Your task to perform on an android device: Go to Maps Image 0: 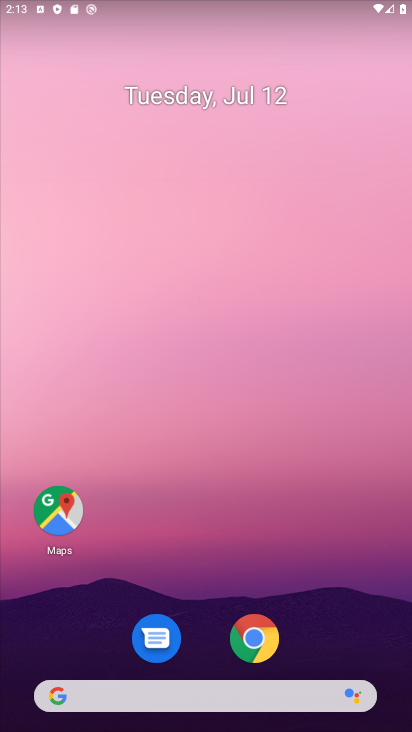
Step 0: click (38, 514)
Your task to perform on an android device: Go to Maps Image 1: 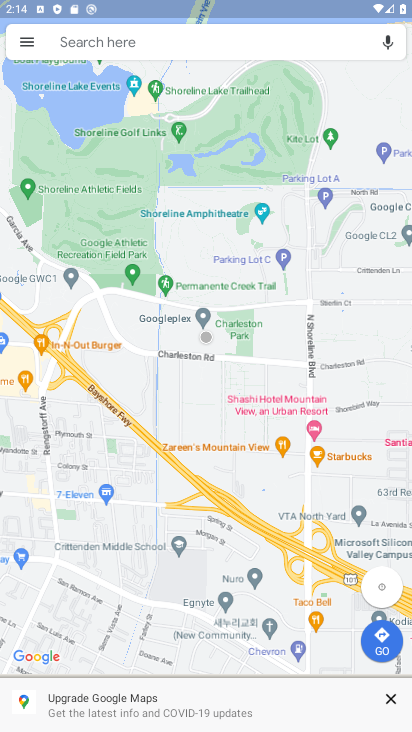
Step 1: task complete